Your task to perform on an android device: turn on airplane mode Image 0: 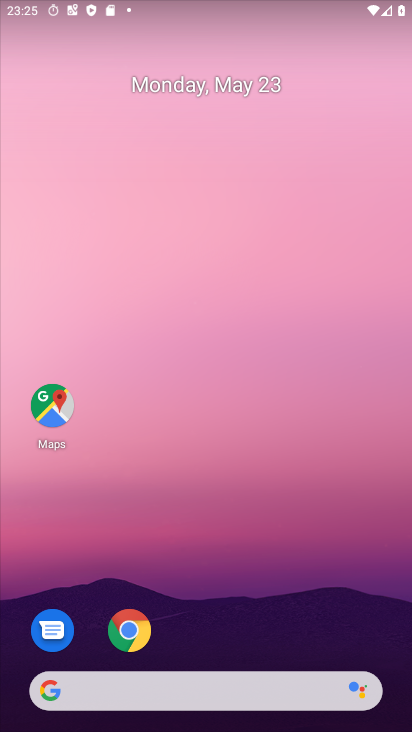
Step 0: drag from (247, 652) to (302, 0)
Your task to perform on an android device: turn on airplane mode Image 1: 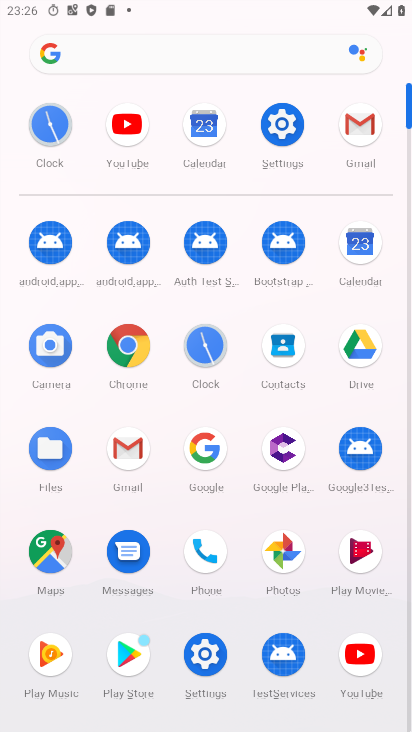
Step 1: click (284, 119)
Your task to perform on an android device: turn on airplane mode Image 2: 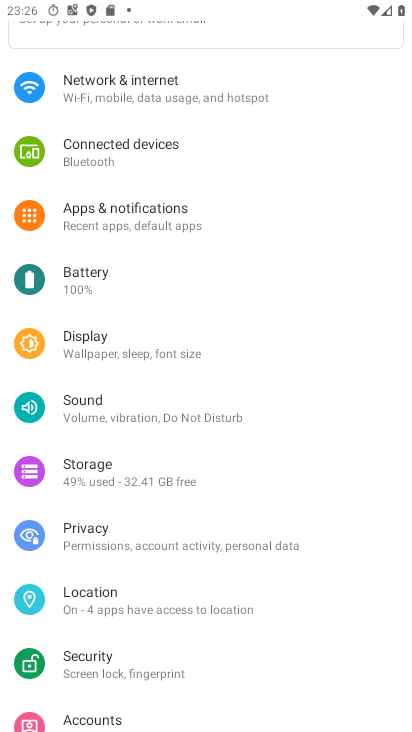
Step 2: click (97, 92)
Your task to perform on an android device: turn on airplane mode Image 3: 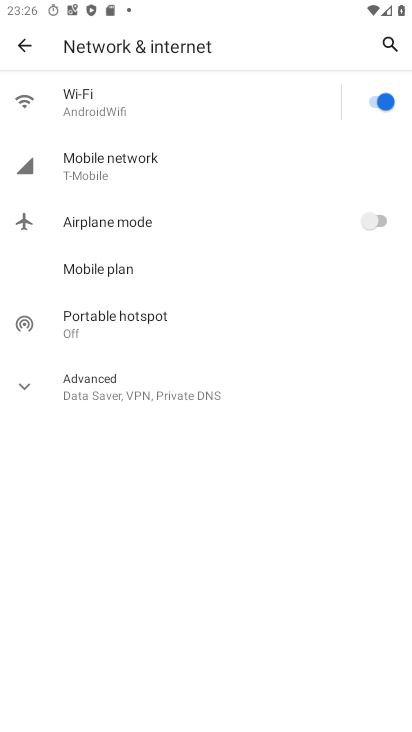
Step 3: click (382, 224)
Your task to perform on an android device: turn on airplane mode Image 4: 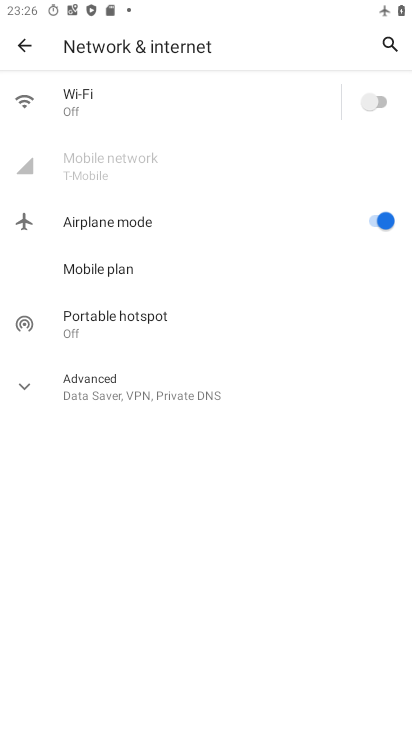
Step 4: task complete